Your task to perform on an android device: Open Google Maps and go to "Timeline" Image 0: 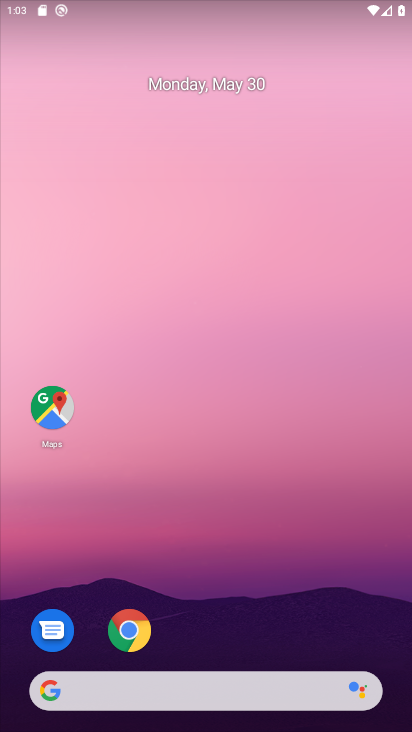
Step 0: press home button
Your task to perform on an android device: Open Google Maps and go to "Timeline" Image 1: 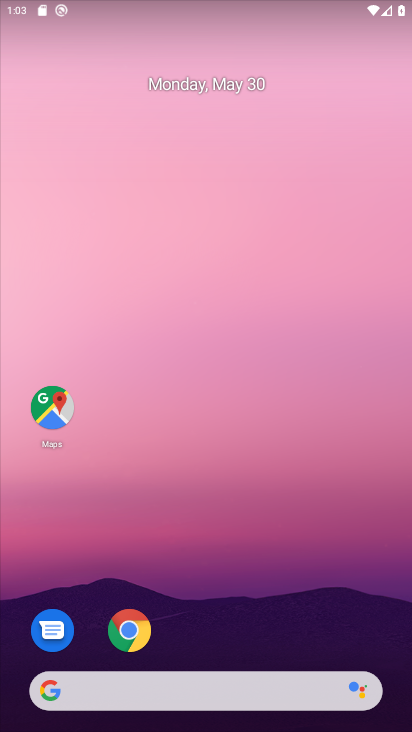
Step 1: click (50, 409)
Your task to perform on an android device: Open Google Maps and go to "Timeline" Image 2: 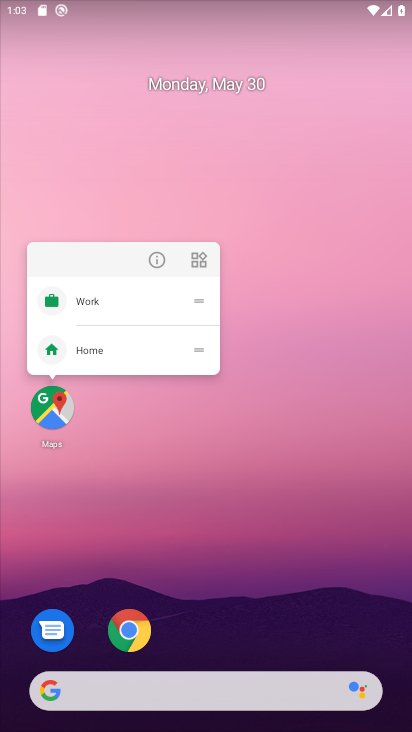
Step 2: click (56, 409)
Your task to perform on an android device: Open Google Maps and go to "Timeline" Image 3: 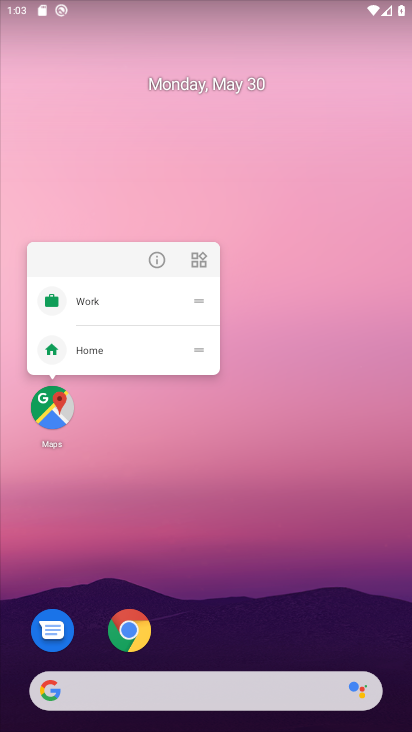
Step 3: click (52, 413)
Your task to perform on an android device: Open Google Maps and go to "Timeline" Image 4: 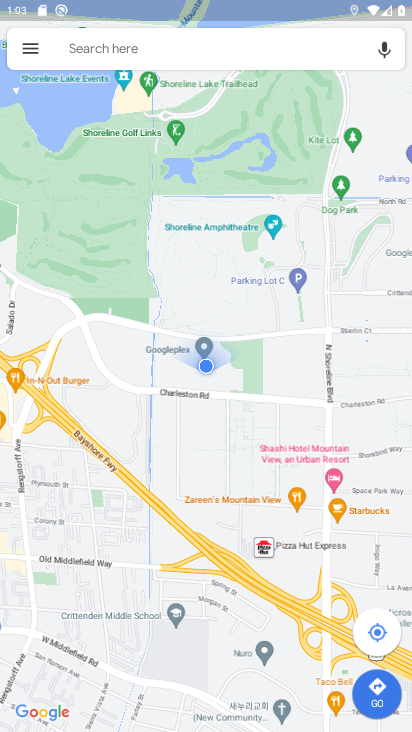
Step 4: click (32, 39)
Your task to perform on an android device: Open Google Maps and go to "Timeline" Image 5: 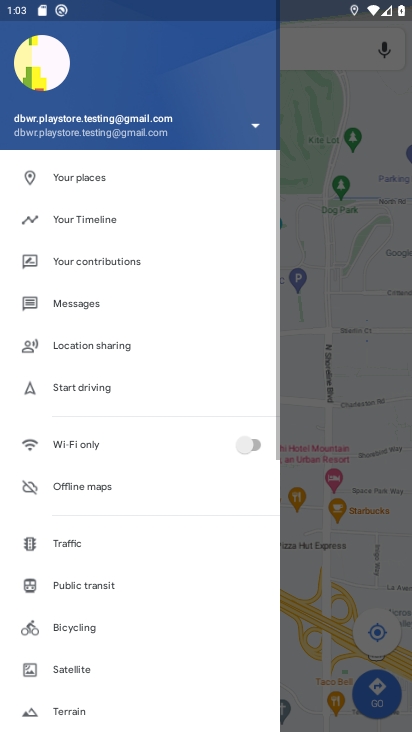
Step 5: click (78, 214)
Your task to perform on an android device: Open Google Maps and go to "Timeline" Image 6: 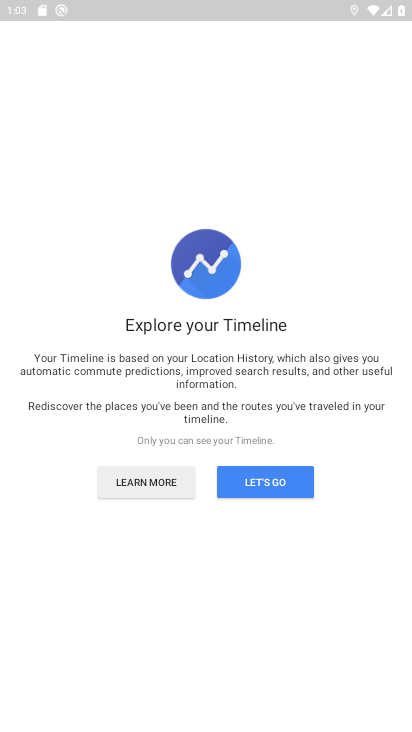
Step 6: click (274, 478)
Your task to perform on an android device: Open Google Maps and go to "Timeline" Image 7: 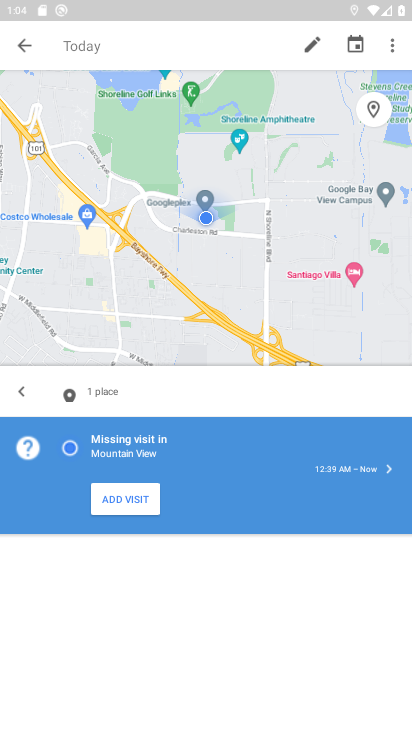
Step 7: task complete